Your task to perform on an android device: toggle pop-ups in chrome Image 0: 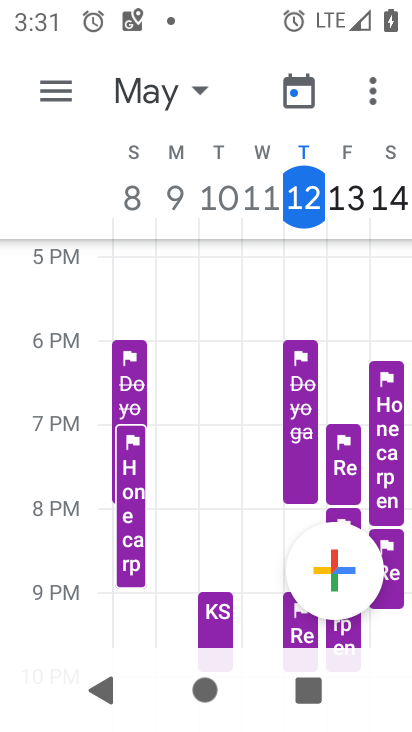
Step 0: press home button
Your task to perform on an android device: toggle pop-ups in chrome Image 1: 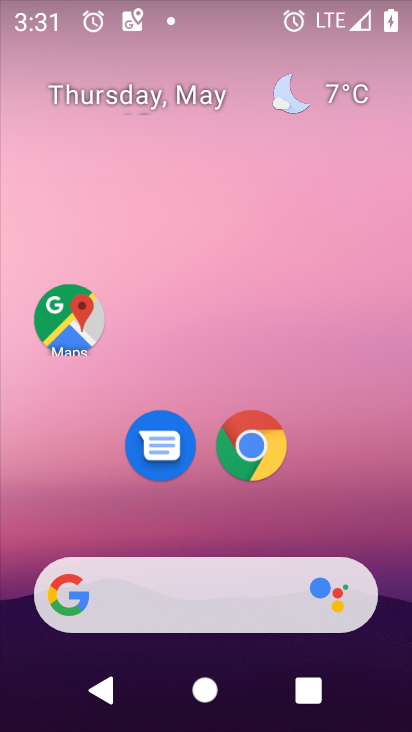
Step 1: click (264, 446)
Your task to perform on an android device: toggle pop-ups in chrome Image 2: 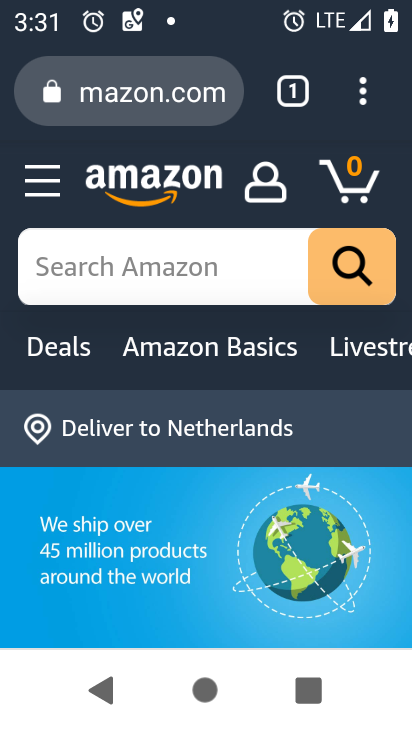
Step 2: click (365, 104)
Your task to perform on an android device: toggle pop-ups in chrome Image 3: 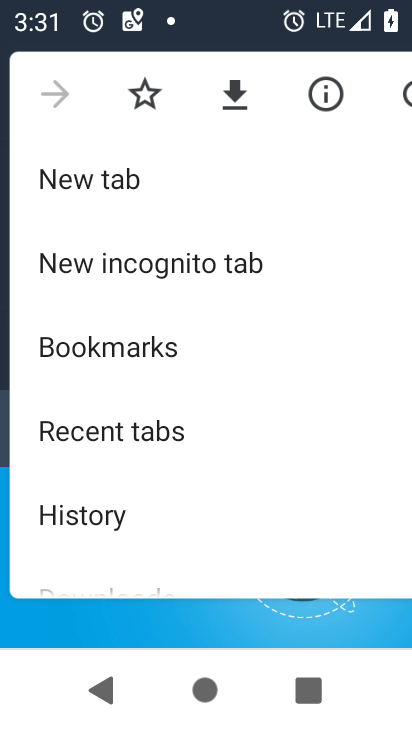
Step 3: drag from (256, 481) to (219, 131)
Your task to perform on an android device: toggle pop-ups in chrome Image 4: 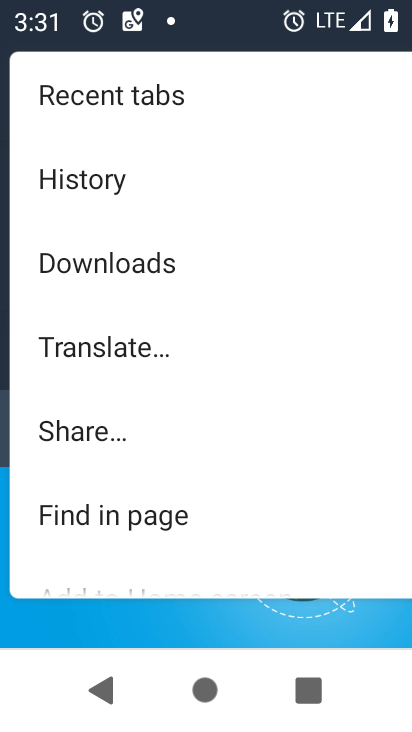
Step 4: drag from (249, 448) to (212, 155)
Your task to perform on an android device: toggle pop-ups in chrome Image 5: 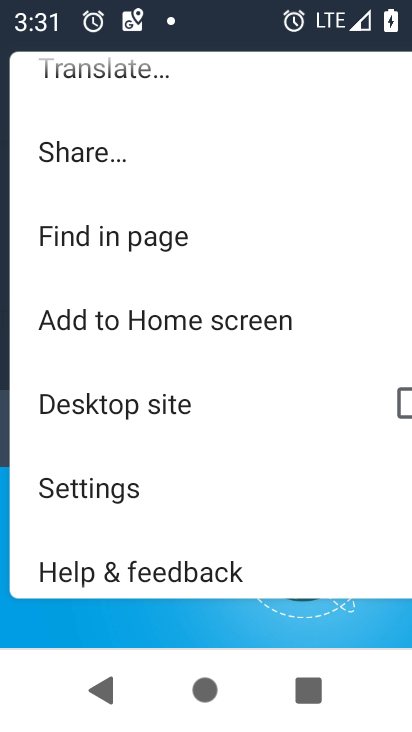
Step 5: click (129, 497)
Your task to perform on an android device: toggle pop-ups in chrome Image 6: 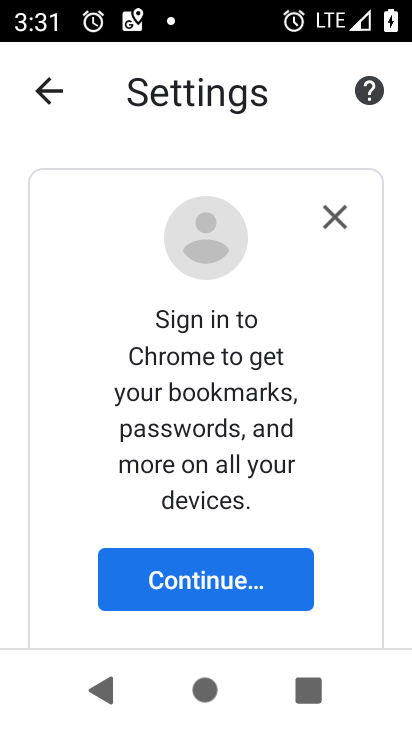
Step 6: drag from (346, 582) to (322, 178)
Your task to perform on an android device: toggle pop-ups in chrome Image 7: 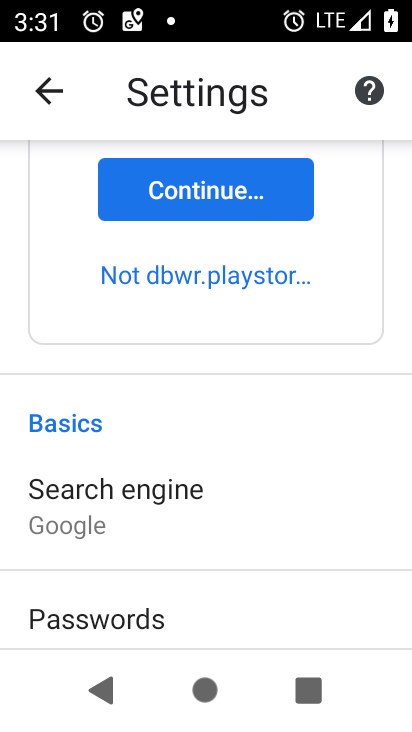
Step 7: drag from (286, 455) to (266, 184)
Your task to perform on an android device: toggle pop-ups in chrome Image 8: 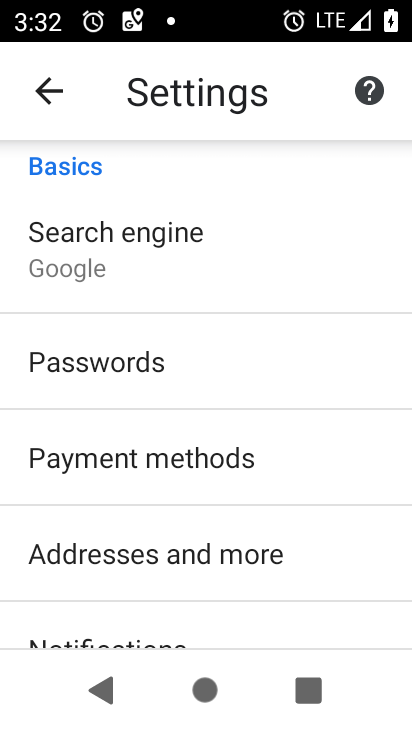
Step 8: drag from (188, 491) to (183, 188)
Your task to perform on an android device: toggle pop-ups in chrome Image 9: 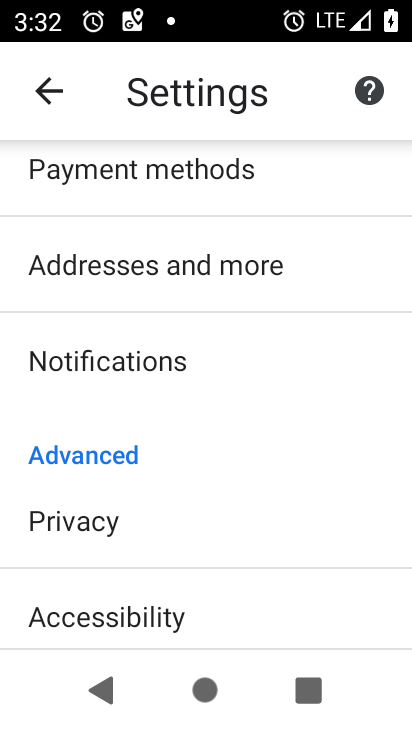
Step 9: drag from (199, 448) to (176, 161)
Your task to perform on an android device: toggle pop-ups in chrome Image 10: 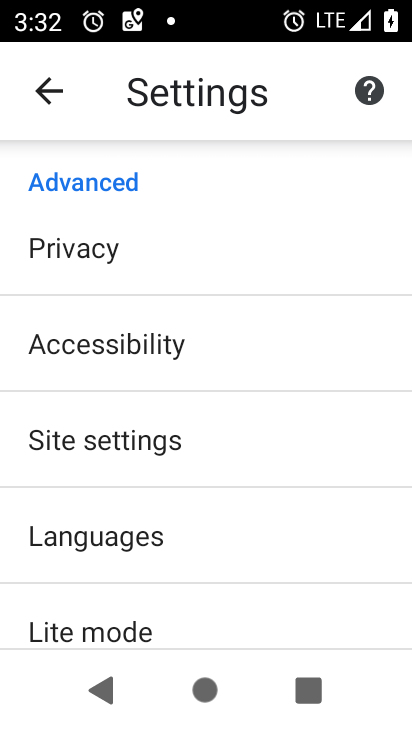
Step 10: drag from (241, 505) to (206, 193)
Your task to perform on an android device: toggle pop-ups in chrome Image 11: 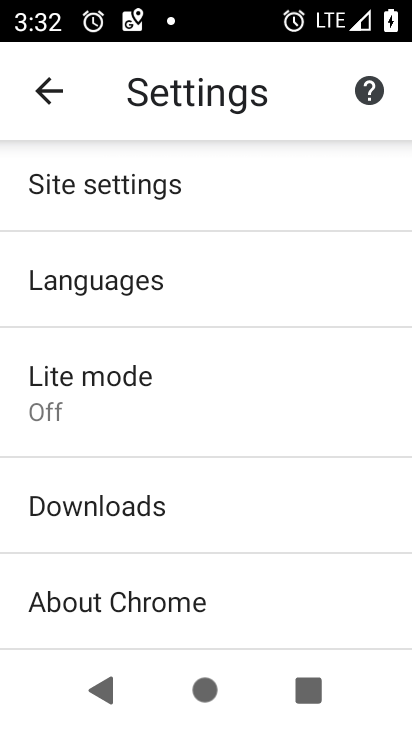
Step 11: click (106, 194)
Your task to perform on an android device: toggle pop-ups in chrome Image 12: 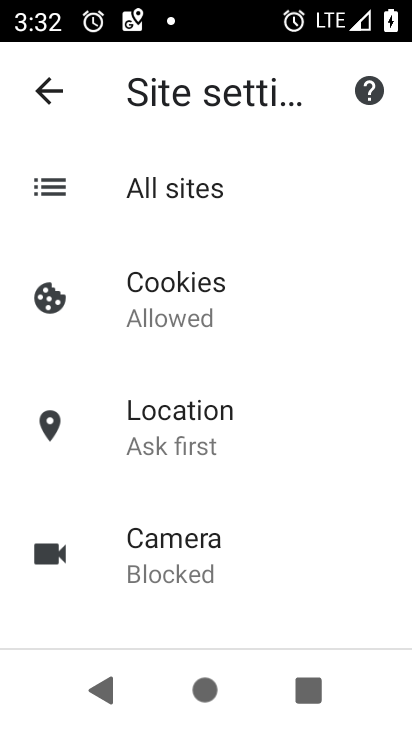
Step 12: drag from (309, 556) to (302, 175)
Your task to perform on an android device: toggle pop-ups in chrome Image 13: 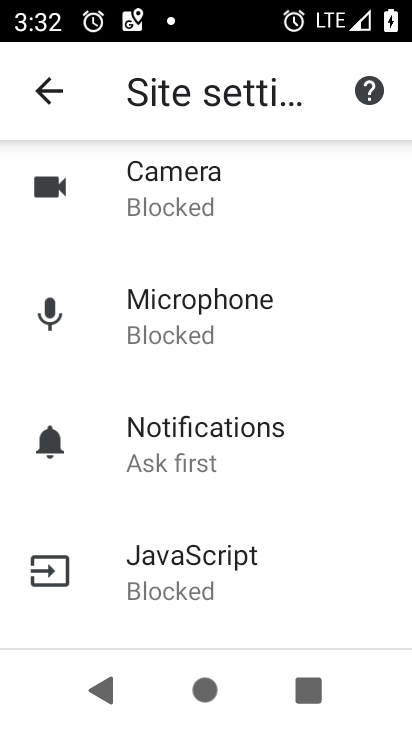
Step 13: drag from (283, 552) to (269, 248)
Your task to perform on an android device: toggle pop-ups in chrome Image 14: 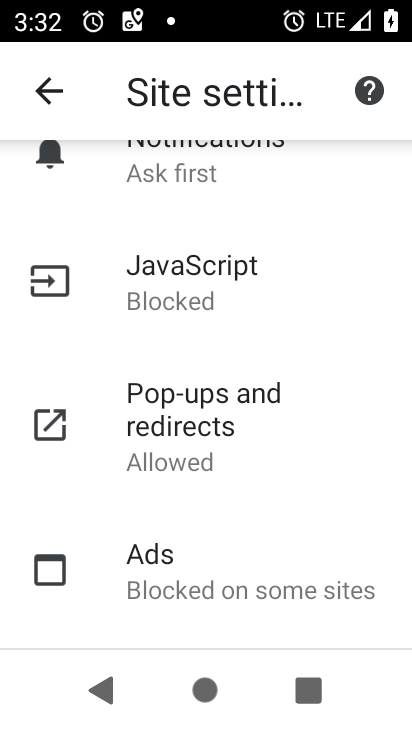
Step 14: click (187, 419)
Your task to perform on an android device: toggle pop-ups in chrome Image 15: 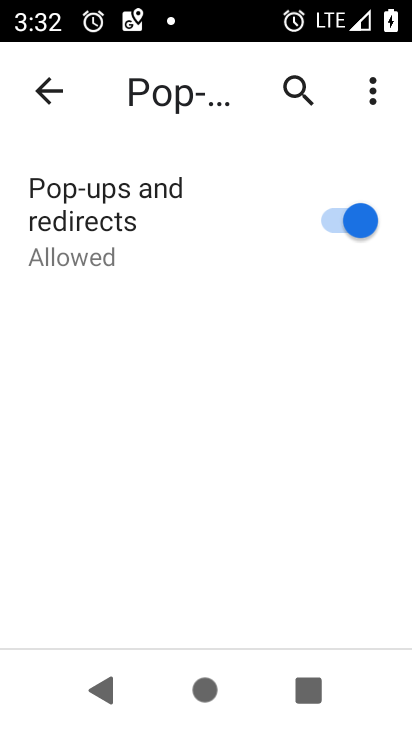
Step 15: click (355, 224)
Your task to perform on an android device: toggle pop-ups in chrome Image 16: 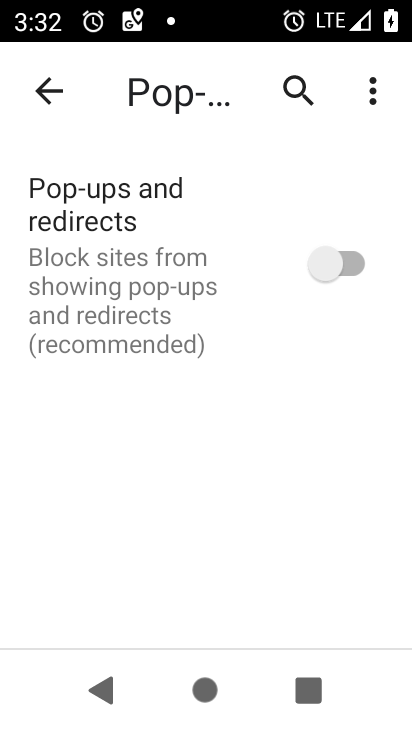
Step 16: task complete